Your task to perform on an android device: turn off notifications in google photos Image 0: 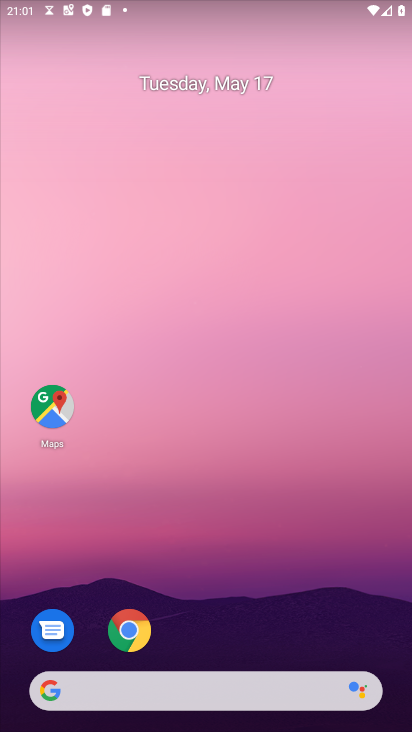
Step 0: drag from (238, 603) to (85, 126)
Your task to perform on an android device: turn off notifications in google photos Image 1: 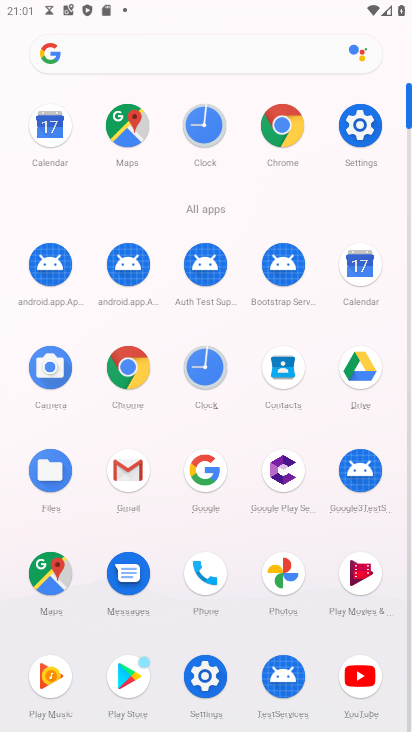
Step 1: click (284, 569)
Your task to perform on an android device: turn off notifications in google photos Image 2: 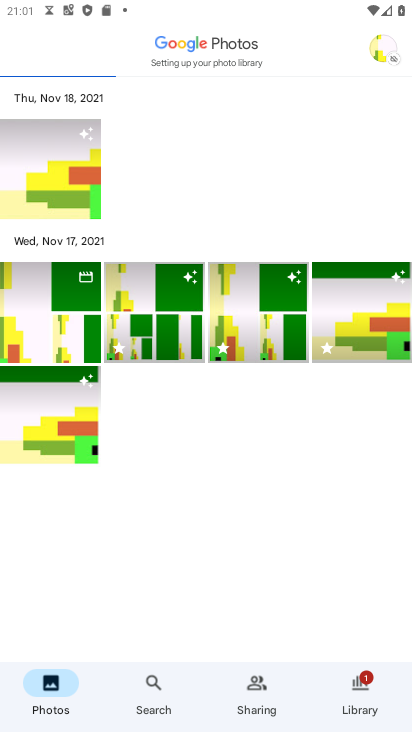
Step 2: click (383, 48)
Your task to perform on an android device: turn off notifications in google photos Image 3: 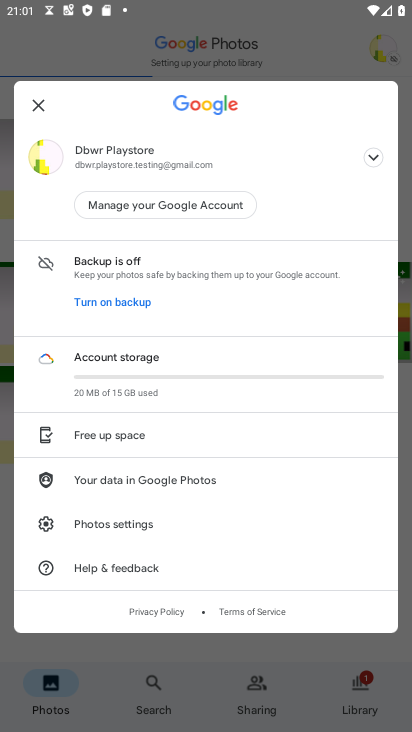
Step 3: click (116, 526)
Your task to perform on an android device: turn off notifications in google photos Image 4: 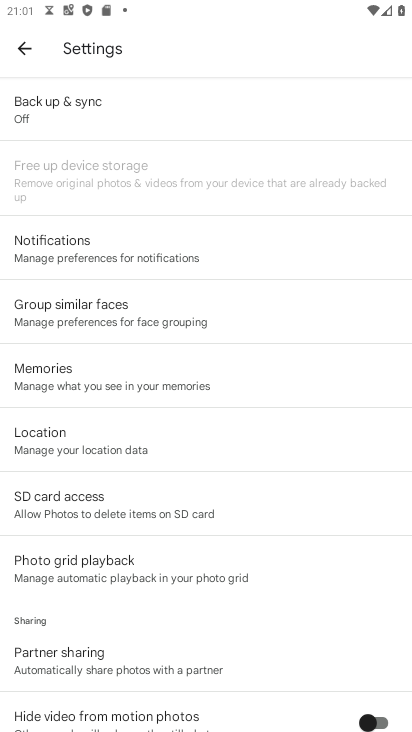
Step 4: click (119, 246)
Your task to perform on an android device: turn off notifications in google photos Image 5: 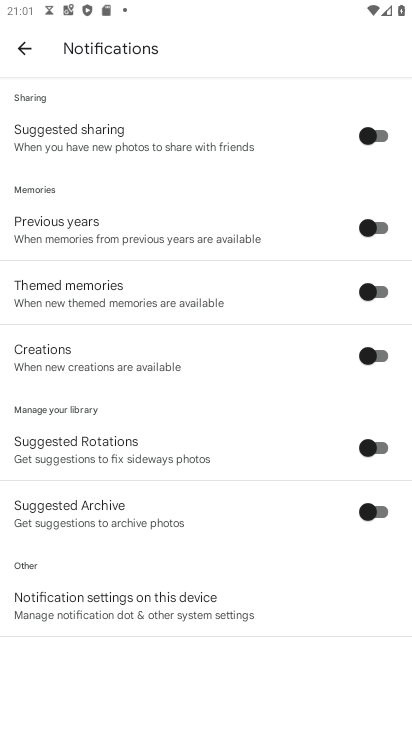
Step 5: click (185, 619)
Your task to perform on an android device: turn off notifications in google photos Image 6: 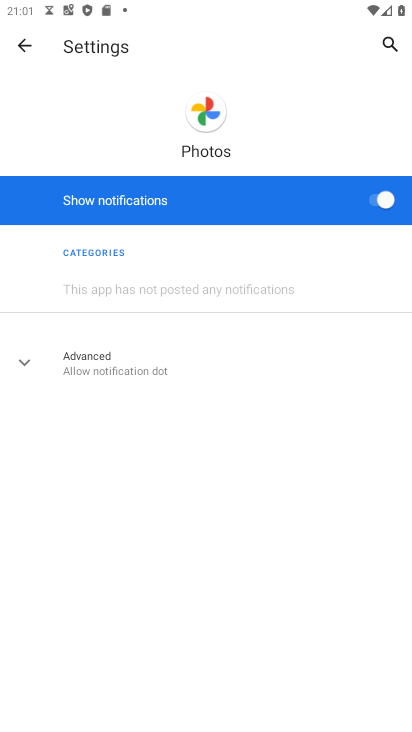
Step 6: click (383, 196)
Your task to perform on an android device: turn off notifications in google photos Image 7: 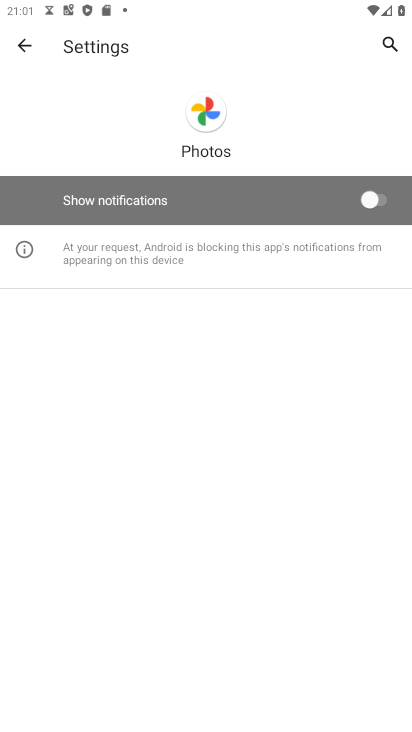
Step 7: task complete